Your task to perform on an android device: toggle priority inbox in the gmail app Image 0: 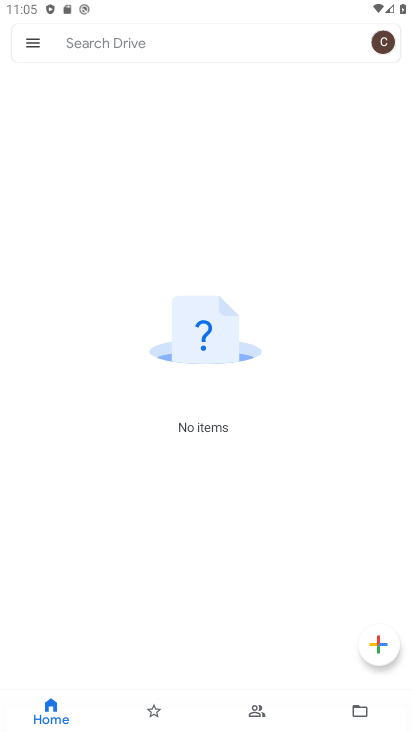
Step 0: press home button
Your task to perform on an android device: toggle priority inbox in the gmail app Image 1: 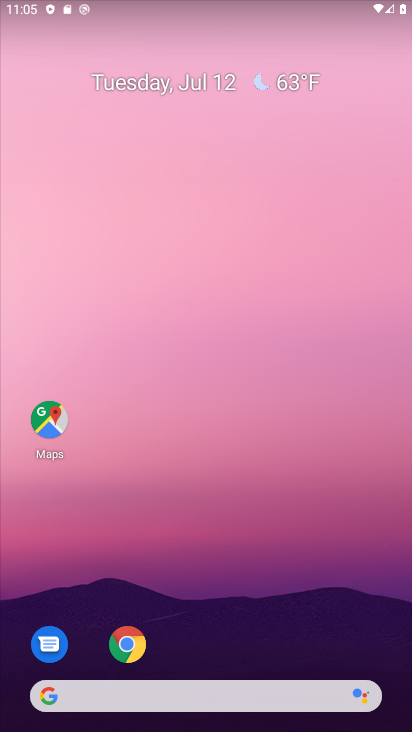
Step 1: drag from (171, 705) to (264, 160)
Your task to perform on an android device: toggle priority inbox in the gmail app Image 2: 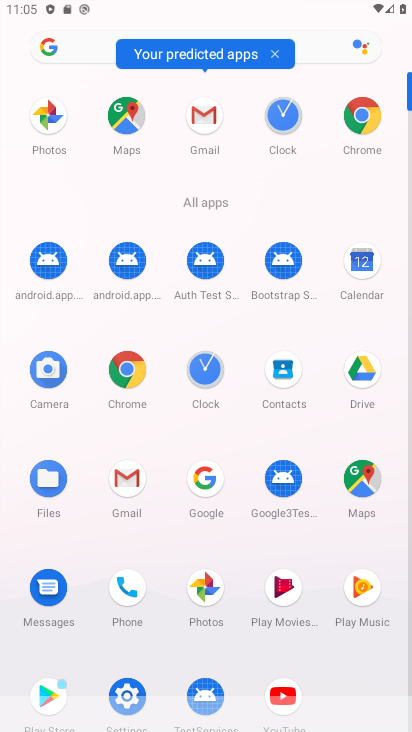
Step 2: click (204, 113)
Your task to perform on an android device: toggle priority inbox in the gmail app Image 3: 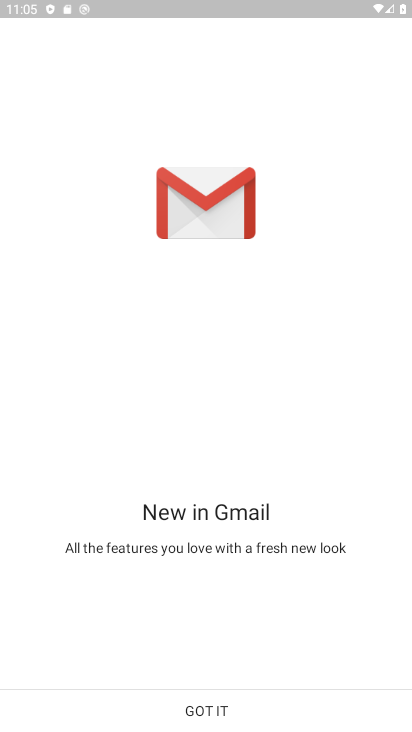
Step 3: click (216, 710)
Your task to perform on an android device: toggle priority inbox in the gmail app Image 4: 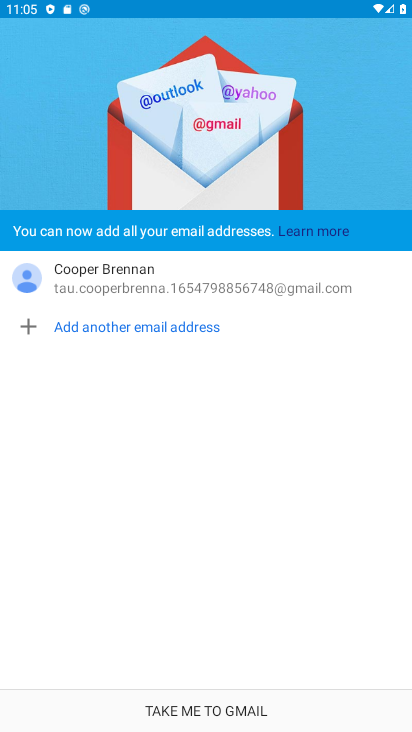
Step 4: click (228, 705)
Your task to perform on an android device: toggle priority inbox in the gmail app Image 5: 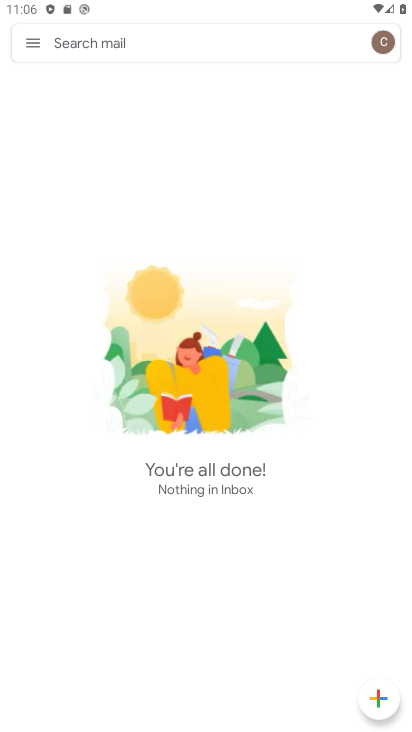
Step 5: click (33, 45)
Your task to perform on an android device: toggle priority inbox in the gmail app Image 6: 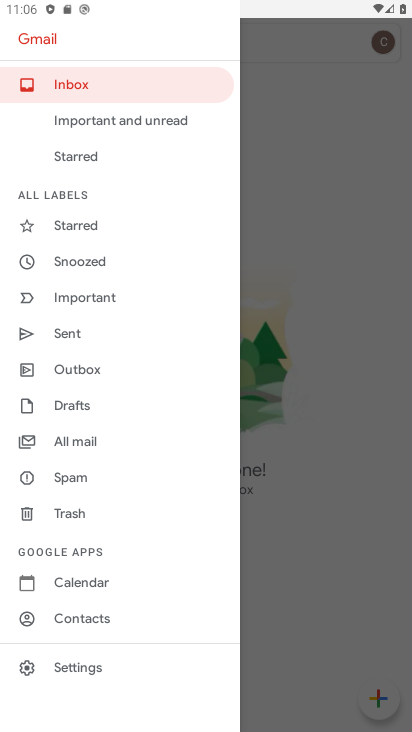
Step 6: click (79, 667)
Your task to perform on an android device: toggle priority inbox in the gmail app Image 7: 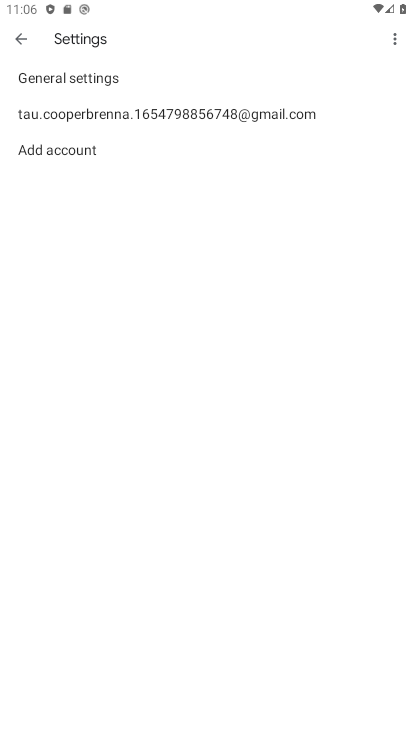
Step 7: click (215, 112)
Your task to perform on an android device: toggle priority inbox in the gmail app Image 8: 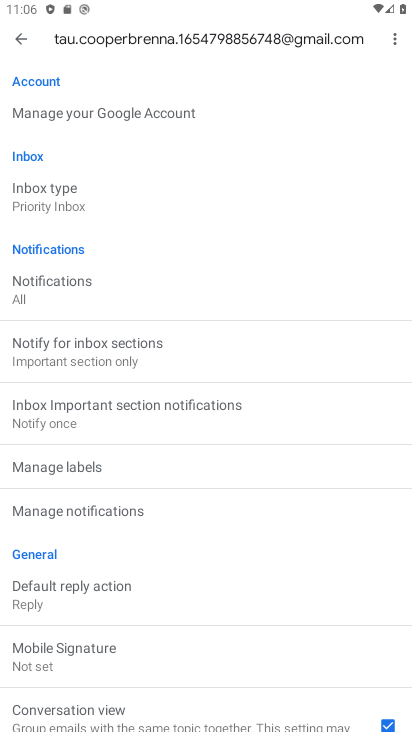
Step 8: click (71, 199)
Your task to perform on an android device: toggle priority inbox in the gmail app Image 9: 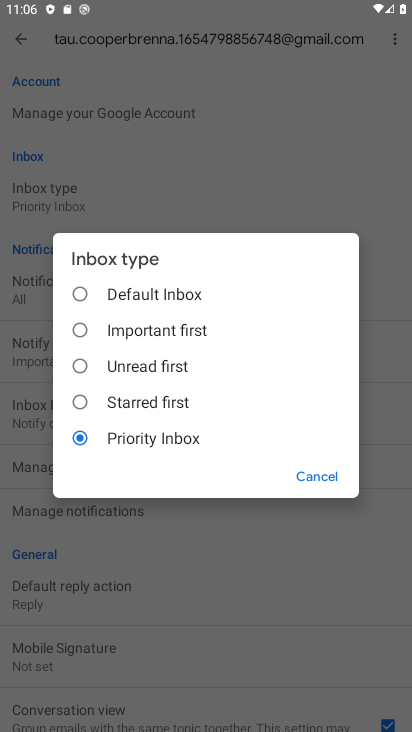
Step 9: click (85, 404)
Your task to perform on an android device: toggle priority inbox in the gmail app Image 10: 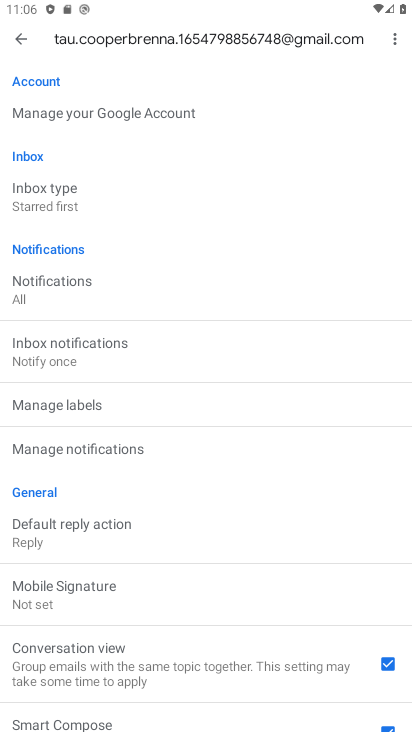
Step 10: task complete